Your task to perform on an android device: add a label to a message in the gmail app Image 0: 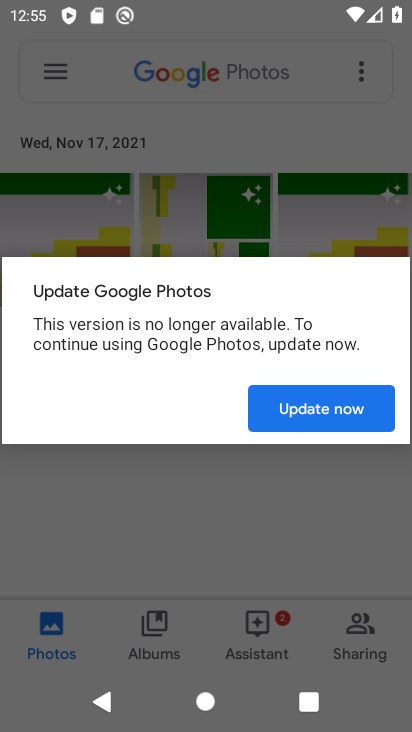
Step 0: press home button
Your task to perform on an android device: add a label to a message in the gmail app Image 1: 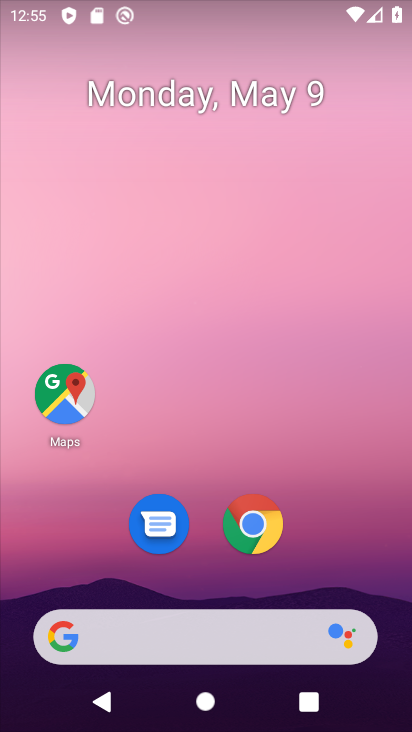
Step 1: drag from (329, 558) to (349, 60)
Your task to perform on an android device: add a label to a message in the gmail app Image 2: 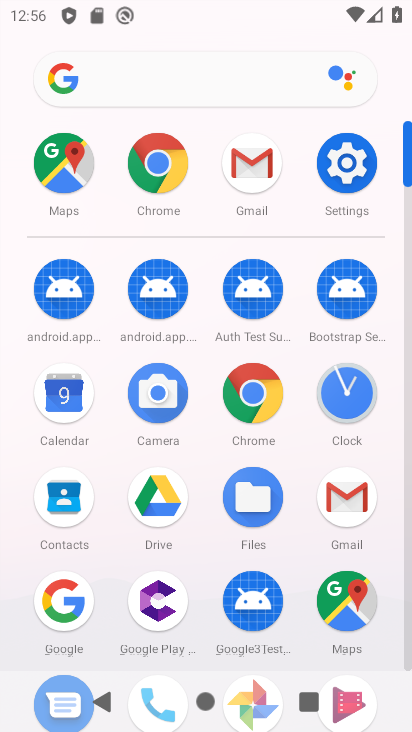
Step 2: click (253, 169)
Your task to perform on an android device: add a label to a message in the gmail app Image 3: 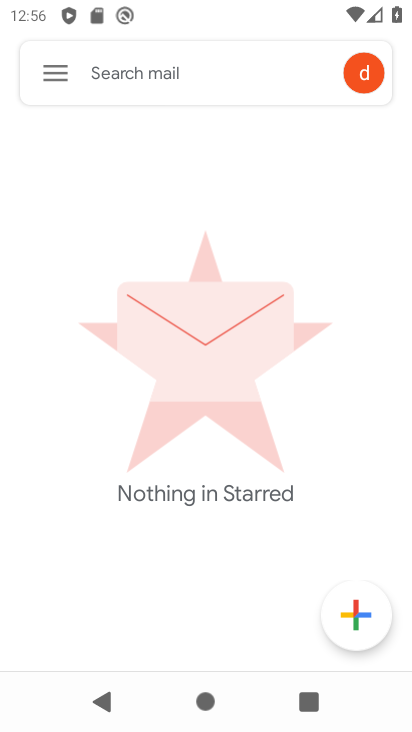
Step 3: click (60, 66)
Your task to perform on an android device: add a label to a message in the gmail app Image 4: 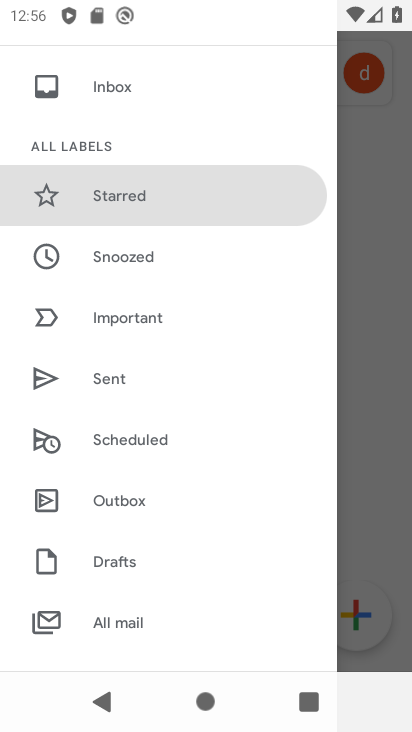
Step 4: click (136, 614)
Your task to perform on an android device: add a label to a message in the gmail app Image 5: 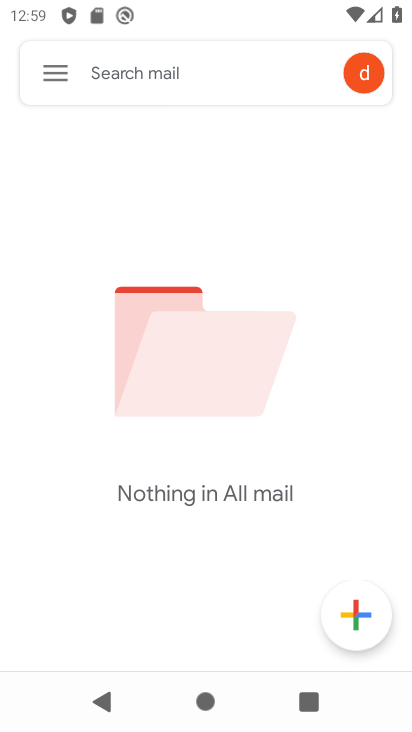
Step 5: task complete